Your task to perform on an android device: allow notifications from all sites in the chrome app Image 0: 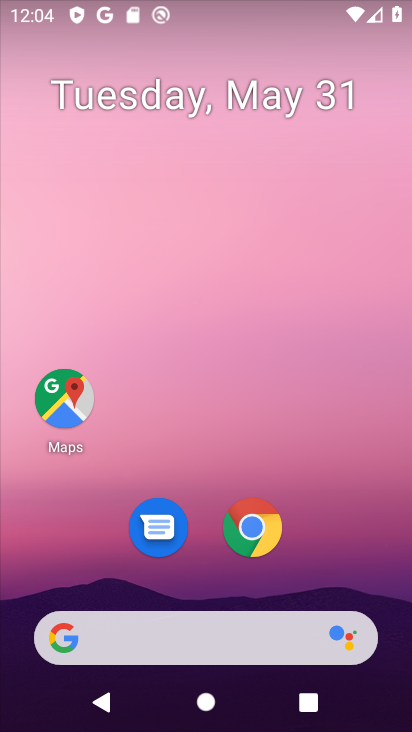
Step 0: drag from (257, 445) to (260, 199)
Your task to perform on an android device: allow notifications from all sites in the chrome app Image 1: 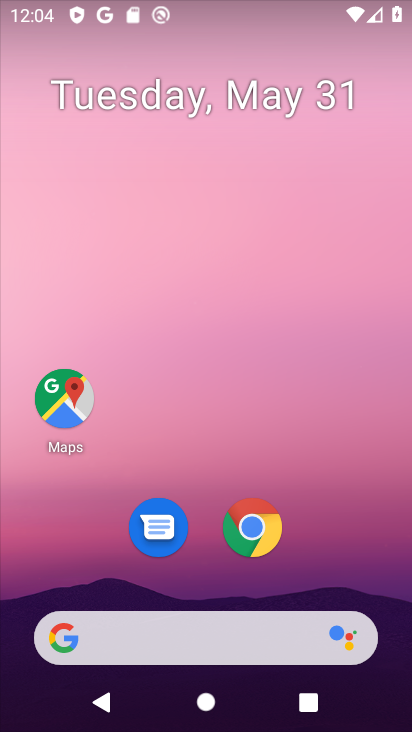
Step 1: drag from (248, 729) to (126, 152)
Your task to perform on an android device: allow notifications from all sites in the chrome app Image 2: 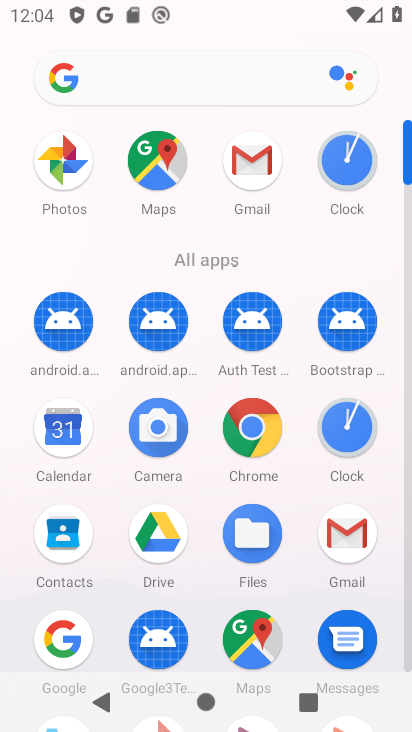
Step 2: click (248, 413)
Your task to perform on an android device: allow notifications from all sites in the chrome app Image 3: 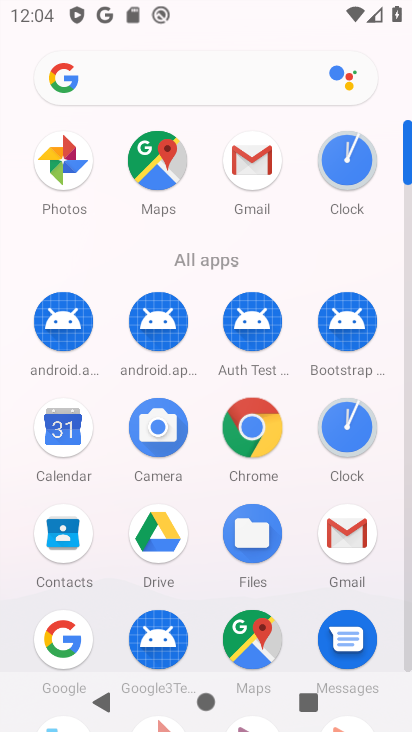
Step 3: click (249, 409)
Your task to perform on an android device: allow notifications from all sites in the chrome app Image 4: 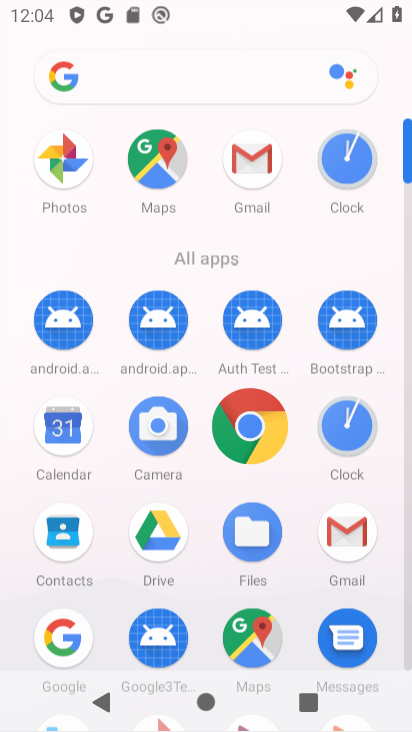
Step 4: click (249, 409)
Your task to perform on an android device: allow notifications from all sites in the chrome app Image 5: 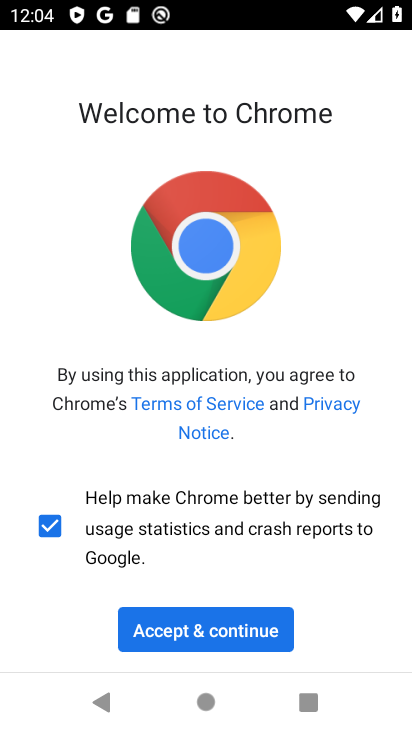
Step 5: click (209, 628)
Your task to perform on an android device: allow notifications from all sites in the chrome app Image 6: 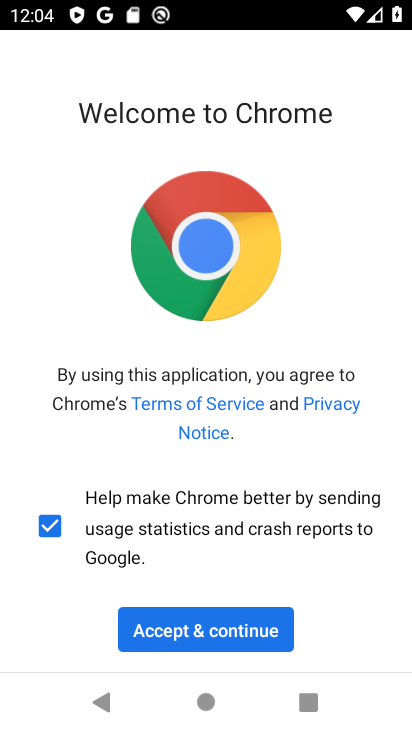
Step 6: click (209, 627)
Your task to perform on an android device: allow notifications from all sites in the chrome app Image 7: 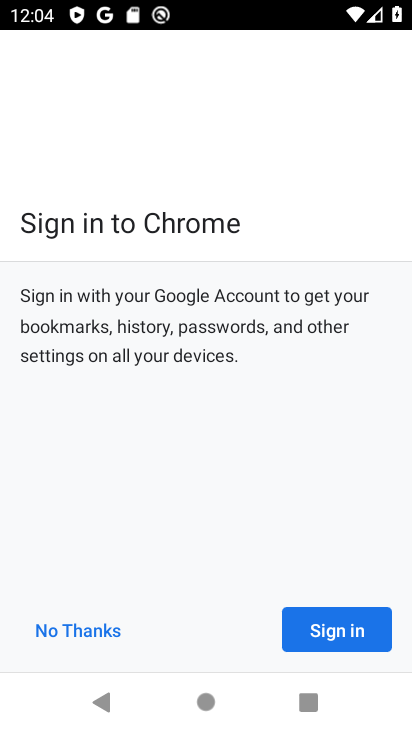
Step 7: click (214, 632)
Your task to perform on an android device: allow notifications from all sites in the chrome app Image 8: 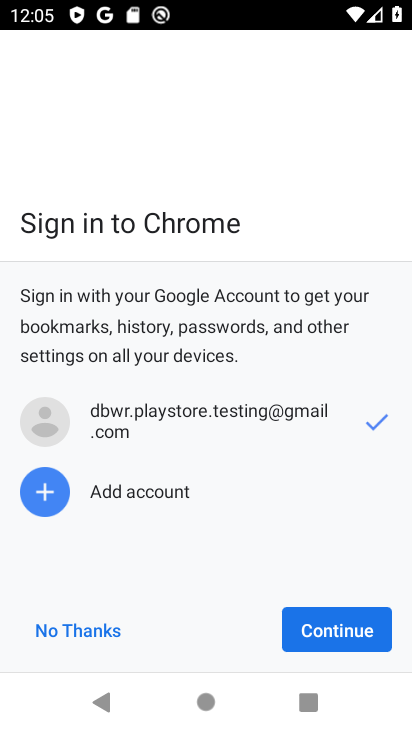
Step 8: click (312, 626)
Your task to perform on an android device: allow notifications from all sites in the chrome app Image 9: 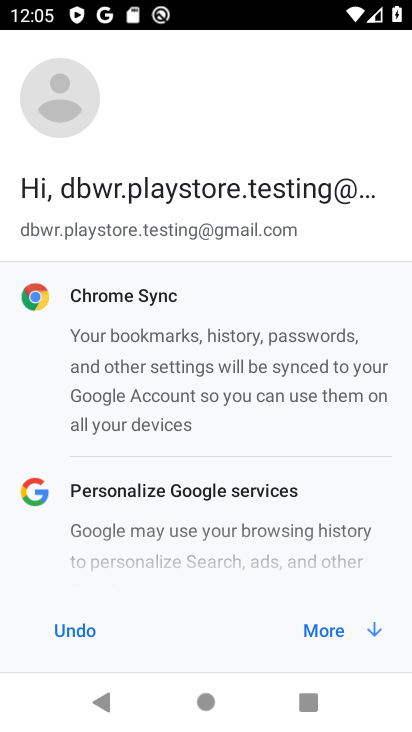
Step 9: click (312, 626)
Your task to perform on an android device: allow notifications from all sites in the chrome app Image 10: 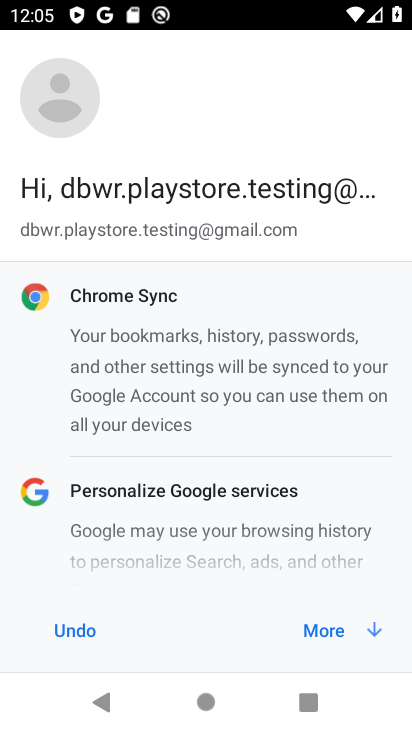
Step 10: click (312, 626)
Your task to perform on an android device: allow notifications from all sites in the chrome app Image 11: 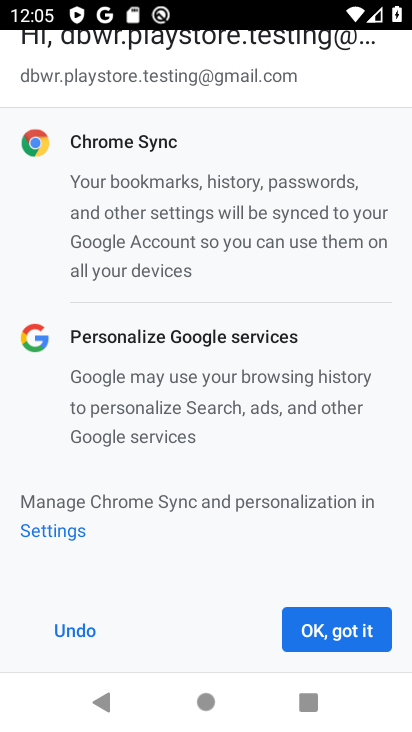
Step 11: click (314, 617)
Your task to perform on an android device: allow notifications from all sites in the chrome app Image 12: 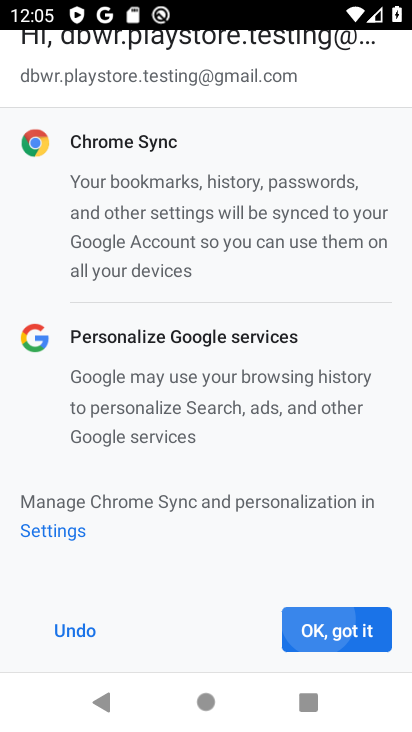
Step 12: click (322, 622)
Your task to perform on an android device: allow notifications from all sites in the chrome app Image 13: 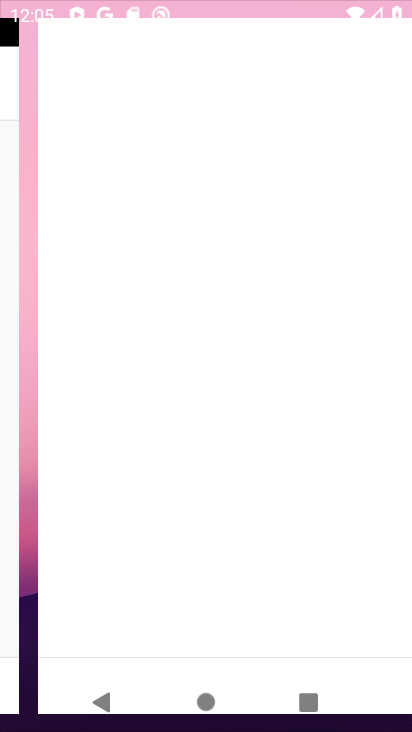
Step 13: click (318, 622)
Your task to perform on an android device: allow notifications from all sites in the chrome app Image 14: 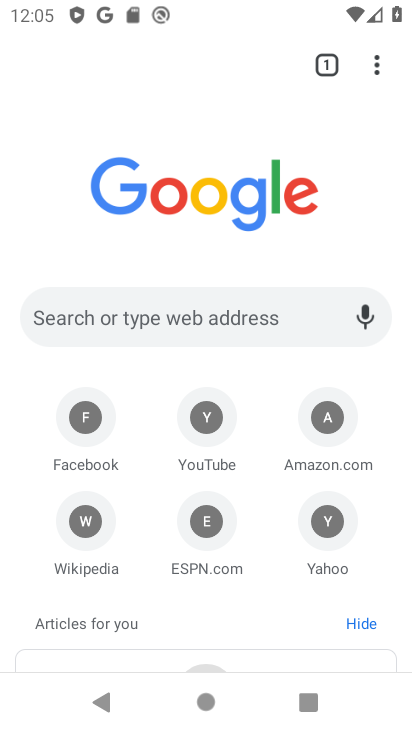
Step 14: drag from (373, 67) to (127, 545)
Your task to perform on an android device: allow notifications from all sites in the chrome app Image 15: 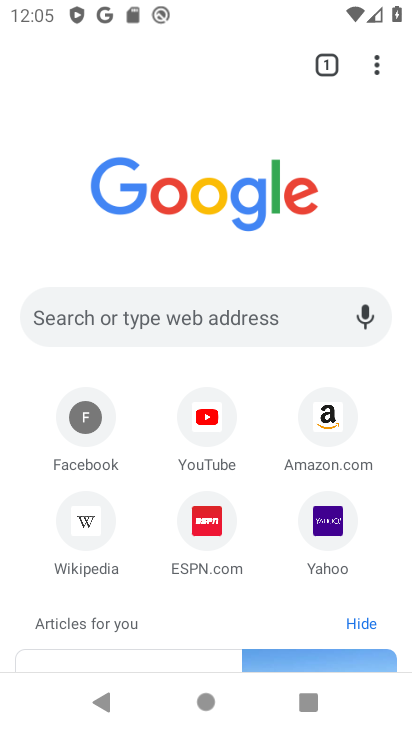
Step 15: click (125, 535)
Your task to perform on an android device: allow notifications from all sites in the chrome app Image 16: 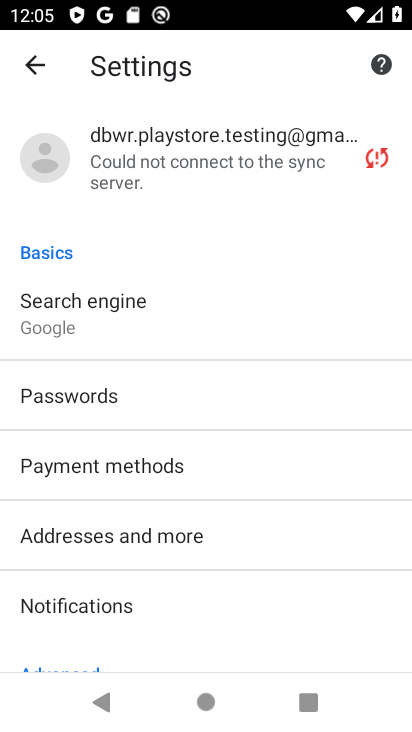
Step 16: drag from (107, 493) to (91, 146)
Your task to perform on an android device: allow notifications from all sites in the chrome app Image 17: 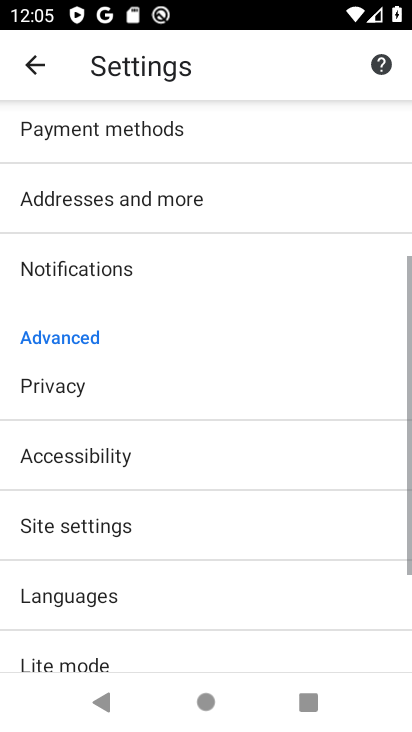
Step 17: drag from (125, 503) to (124, 196)
Your task to perform on an android device: allow notifications from all sites in the chrome app Image 18: 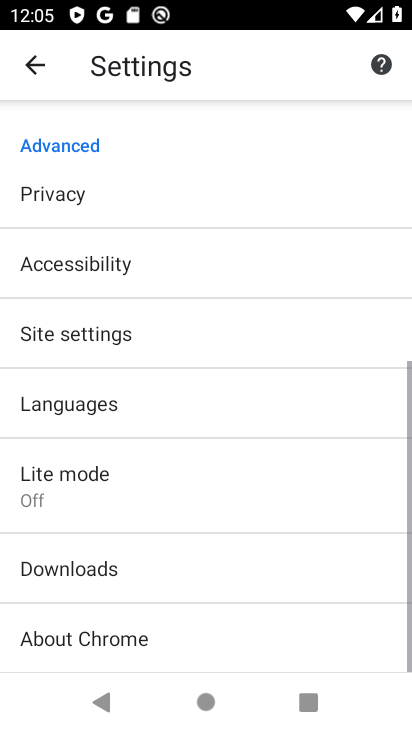
Step 18: drag from (98, 443) to (116, 195)
Your task to perform on an android device: allow notifications from all sites in the chrome app Image 19: 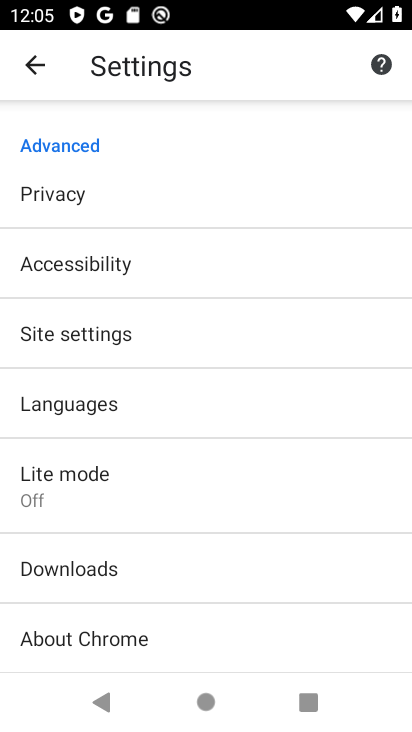
Step 19: click (66, 322)
Your task to perform on an android device: allow notifications from all sites in the chrome app Image 20: 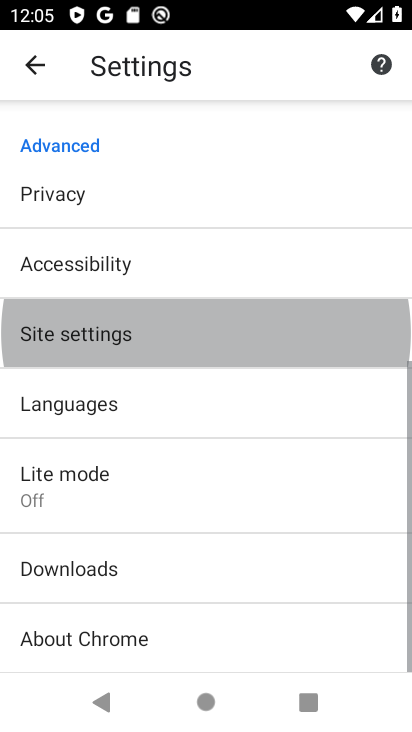
Step 20: click (68, 327)
Your task to perform on an android device: allow notifications from all sites in the chrome app Image 21: 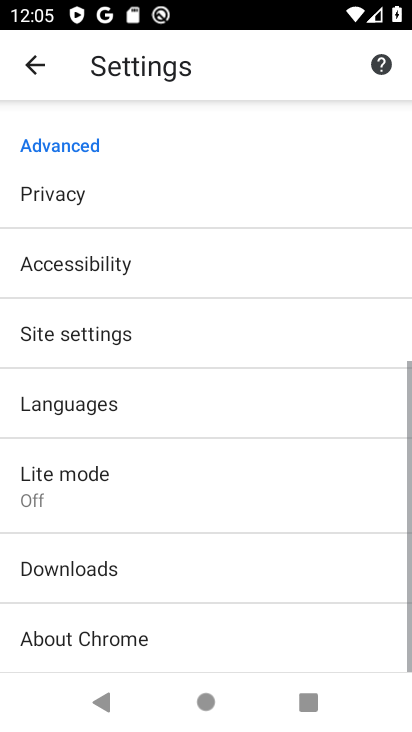
Step 21: click (68, 327)
Your task to perform on an android device: allow notifications from all sites in the chrome app Image 22: 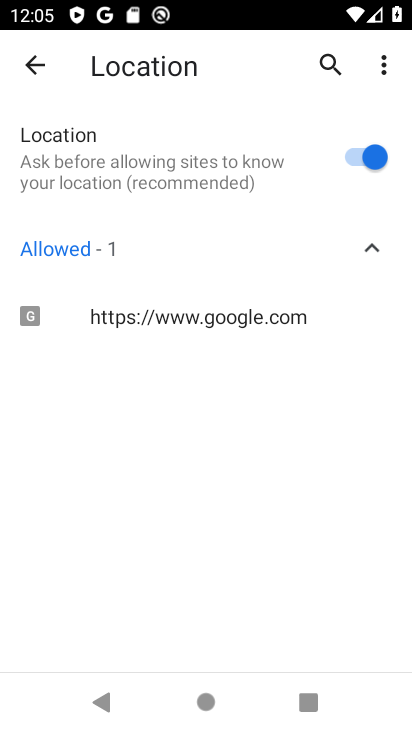
Step 22: click (27, 62)
Your task to perform on an android device: allow notifications from all sites in the chrome app Image 23: 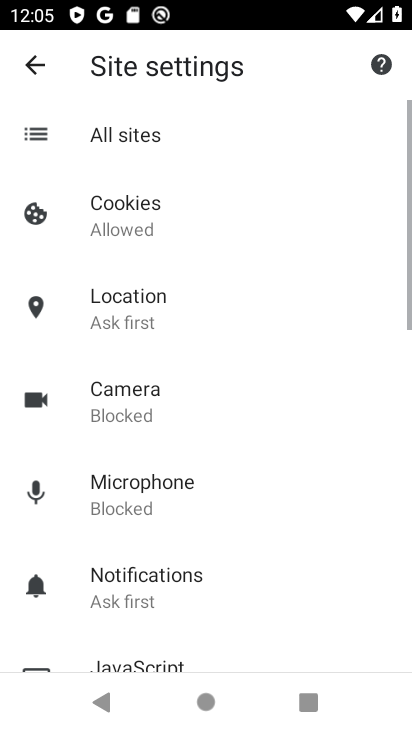
Step 23: click (117, 133)
Your task to perform on an android device: allow notifications from all sites in the chrome app Image 24: 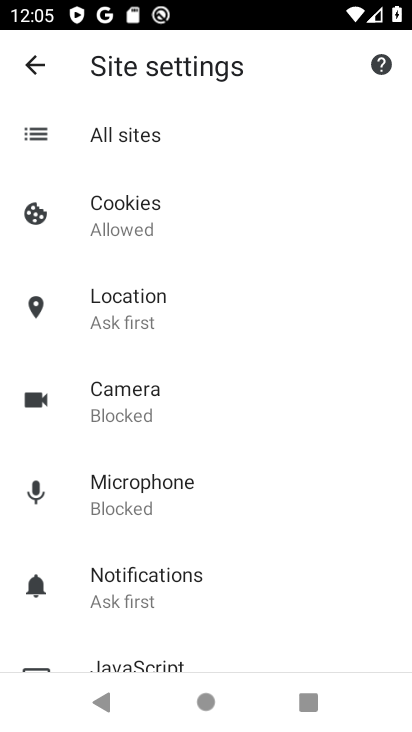
Step 24: click (117, 133)
Your task to perform on an android device: allow notifications from all sites in the chrome app Image 25: 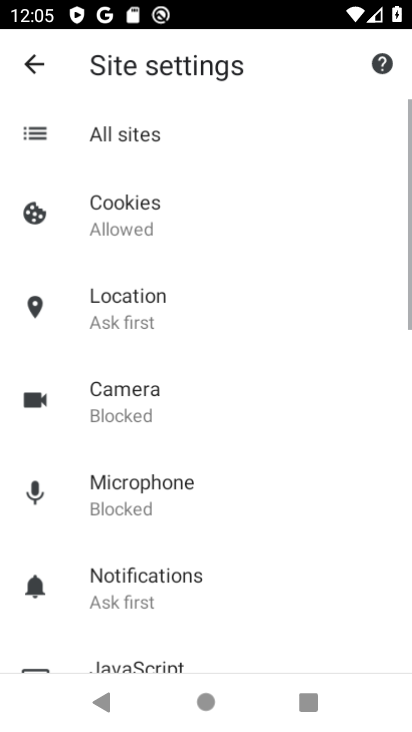
Step 25: click (117, 133)
Your task to perform on an android device: allow notifications from all sites in the chrome app Image 26: 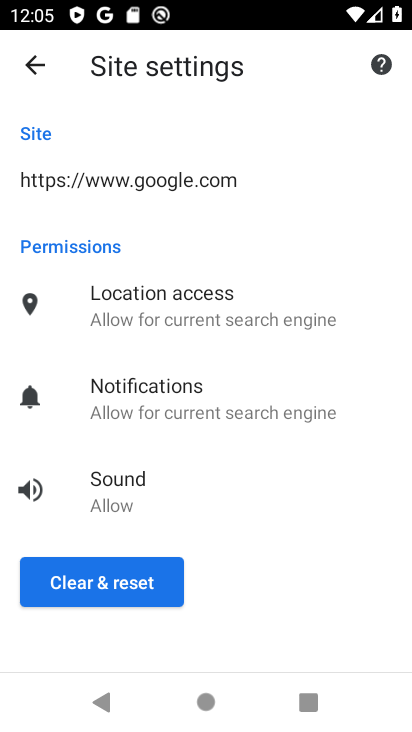
Step 26: task complete